Your task to perform on an android device: toggle improve location accuracy Image 0: 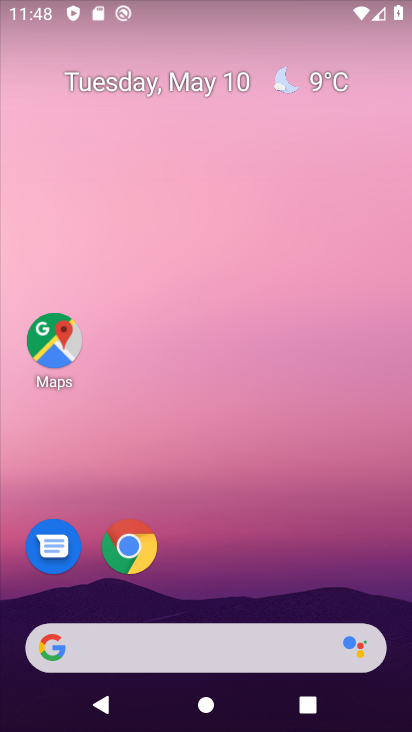
Step 0: drag from (203, 556) to (222, 24)
Your task to perform on an android device: toggle improve location accuracy Image 1: 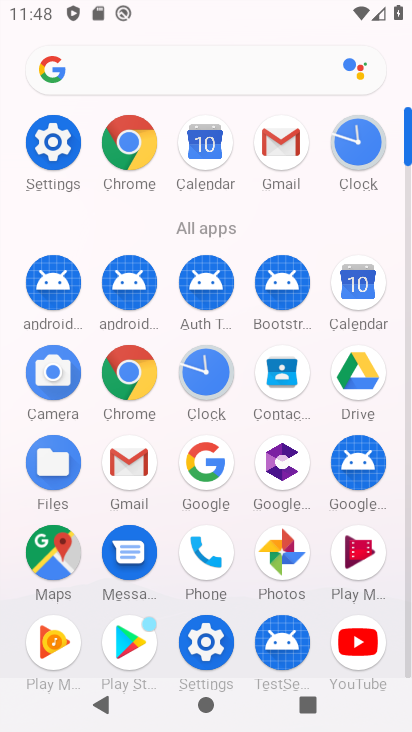
Step 1: click (53, 160)
Your task to perform on an android device: toggle improve location accuracy Image 2: 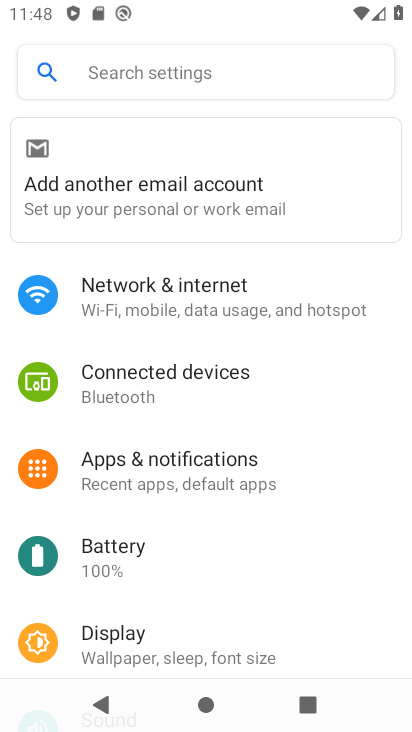
Step 2: drag from (190, 617) to (248, 254)
Your task to perform on an android device: toggle improve location accuracy Image 3: 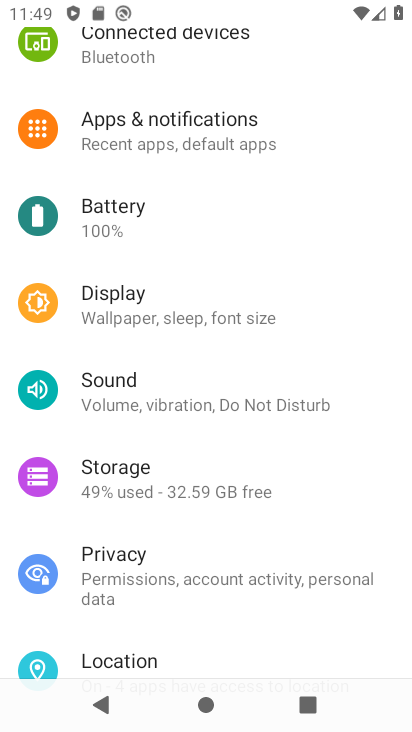
Step 3: click (147, 671)
Your task to perform on an android device: toggle improve location accuracy Image 4: 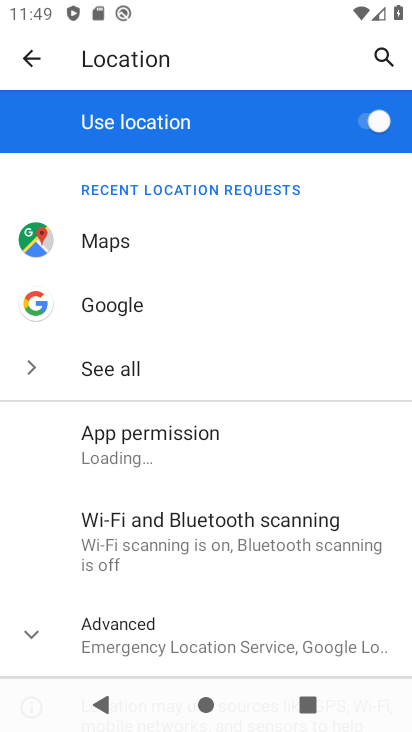
Step 4: click (166, 633)
Your task to perform on an android device: toggle improve location accuracy Image 5: 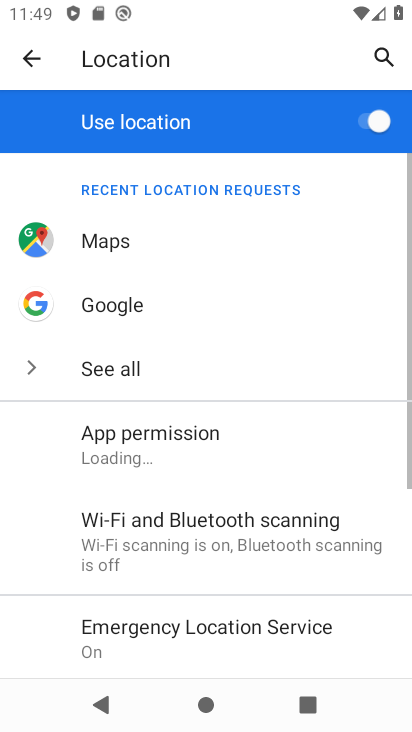
Step 5: drag from (166, 627) to (204, 302)
Your task to perform on an android device: toggle improve location accuracy Image 6: 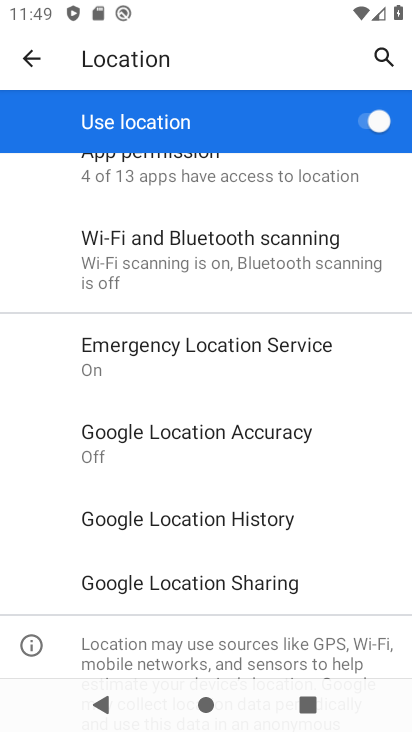
Step 6: click (204, 450)
Your task to perform on an android device: toggle improve location accuracy Image 7: 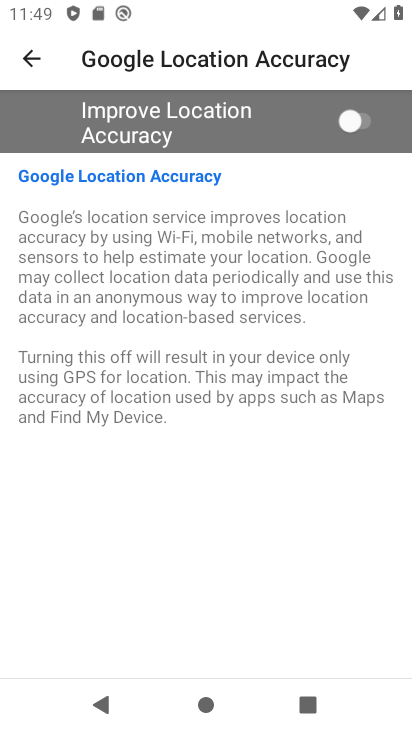
Step 7: click (355, 115)
Your task to perform on an android device: toggle improve location accuracy Image 8: 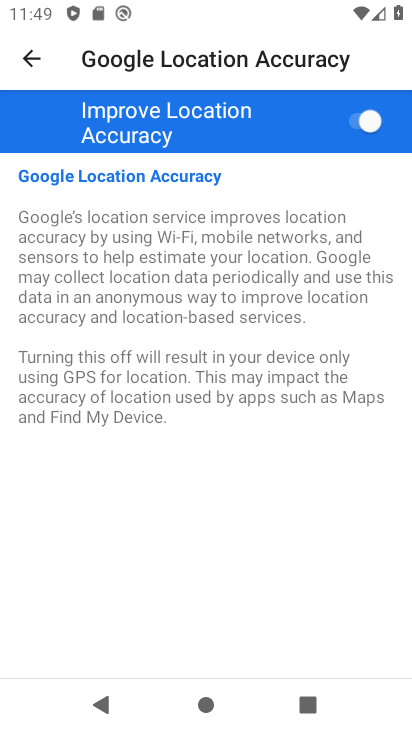
Step 8: task complete